Your task to perform on an android device: Go to notification settings Image 0: 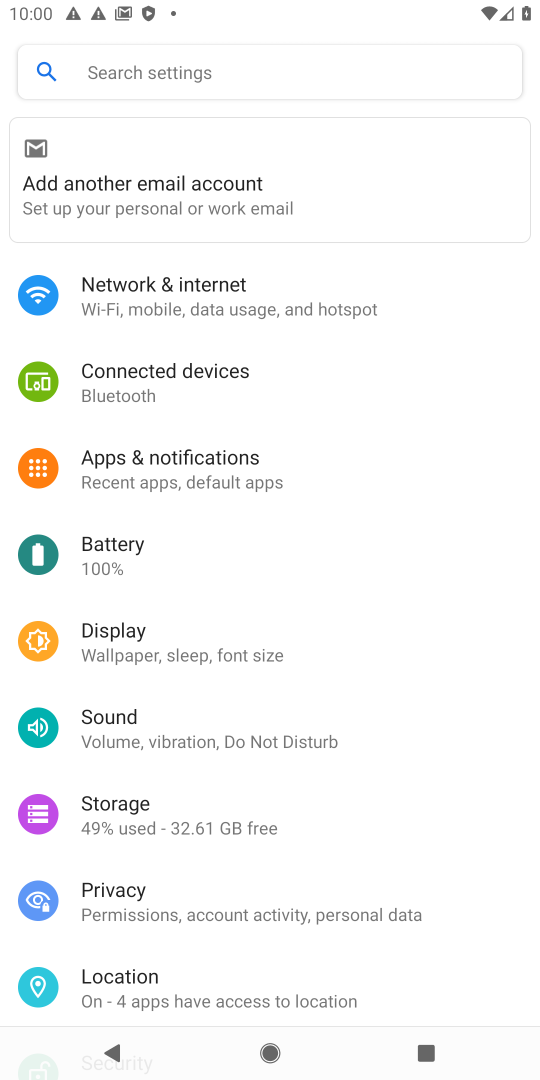
Step 0: press home button
Your task to perform on an android device: Go to notification settings Image 1: 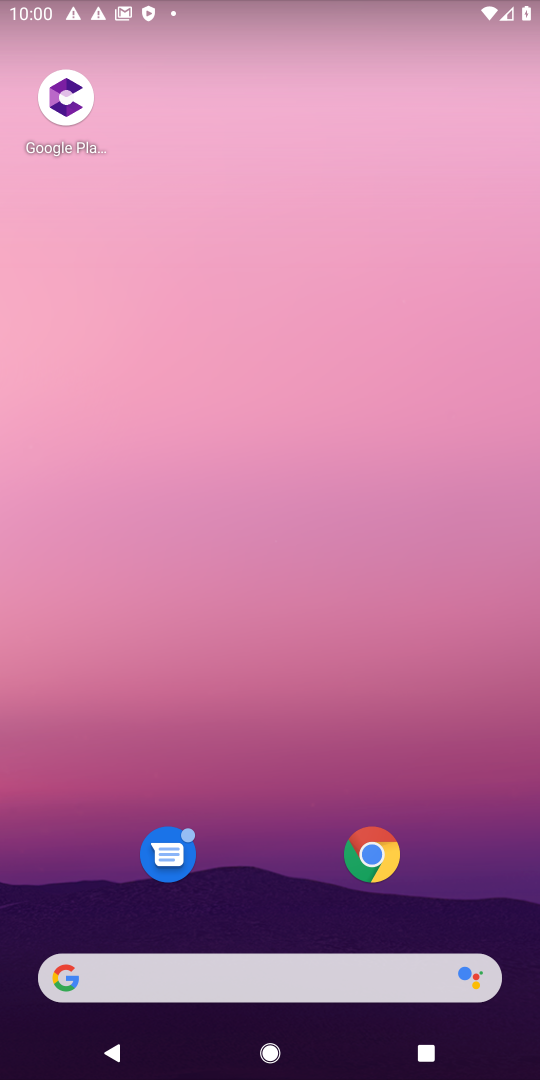
Step 1: click (362, 836)
Your task to perform on an android device: Go to notification settings Image 2: 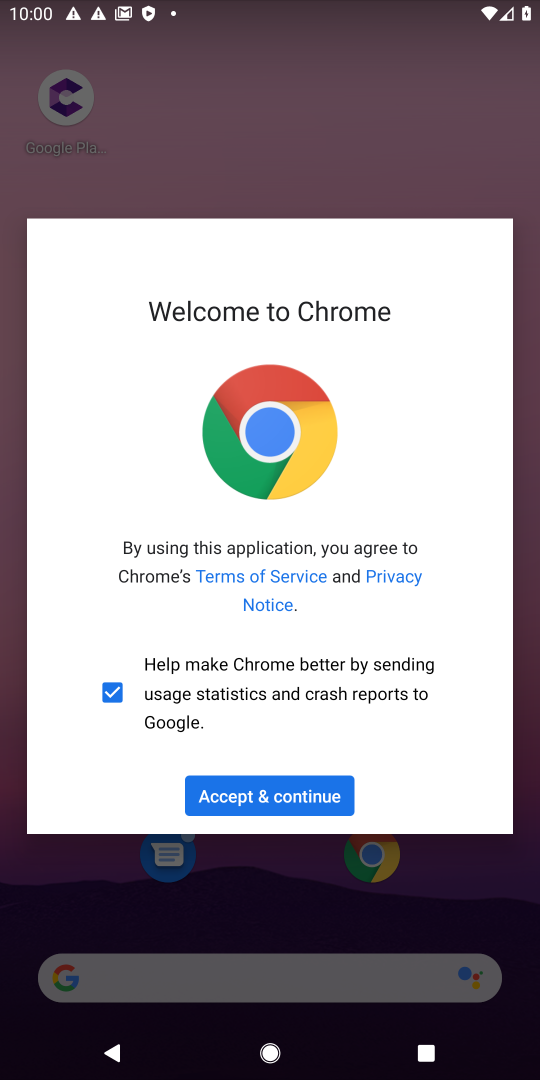
Step 2: click (207, 792)
Your task to perform on an android device: Go to notification settings Image 3: 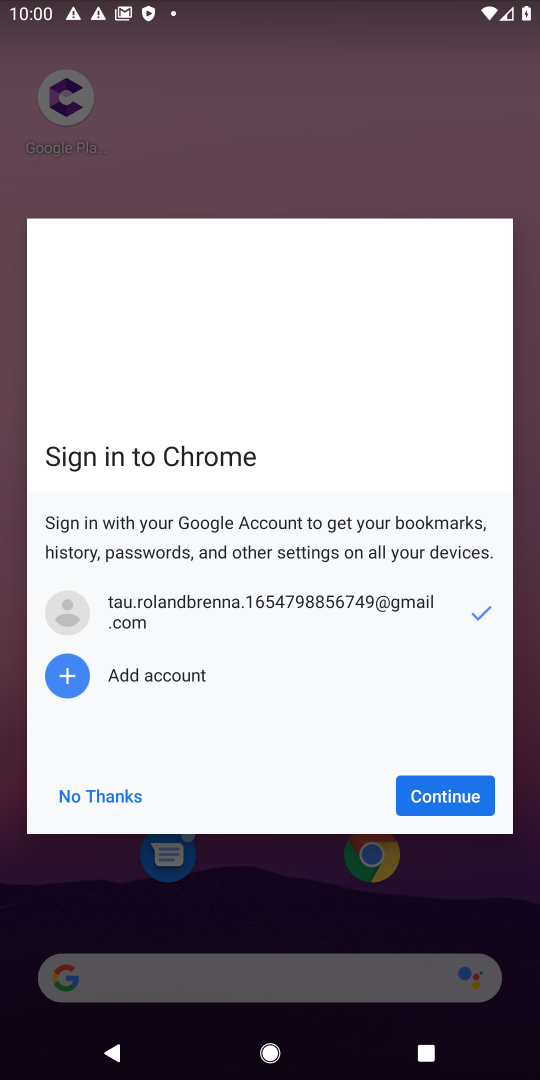
Step 3: click (417, 783)
Your task to perform on an android device: Go to notification settings Image 4: 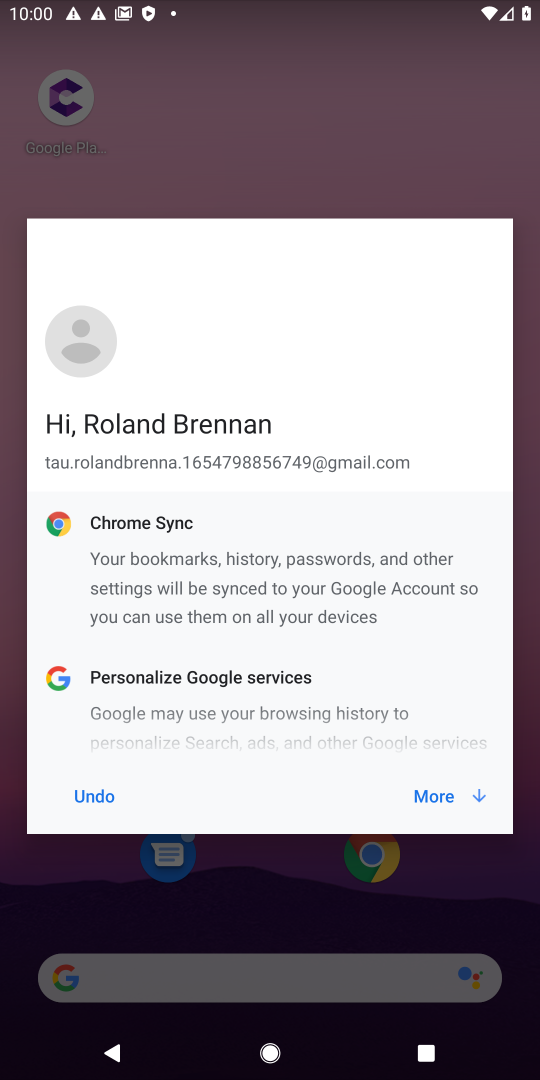
Step 4: click (440, 801)
Your task to perform on an android device: Go to notification settings Image 5: 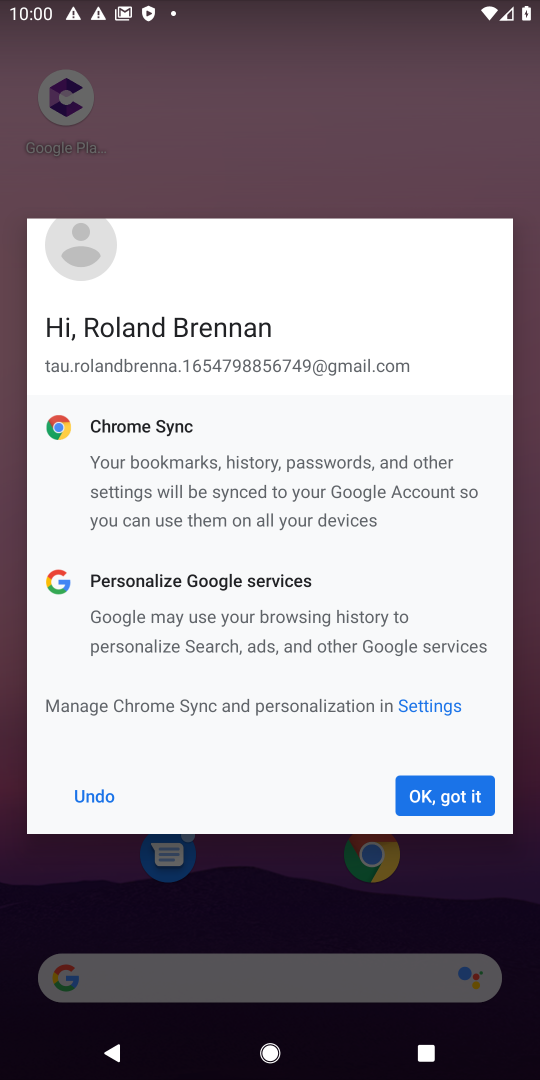
Step 5: click (440, 801)
Your task to perform on an android device: Go to notification settings Image 6: 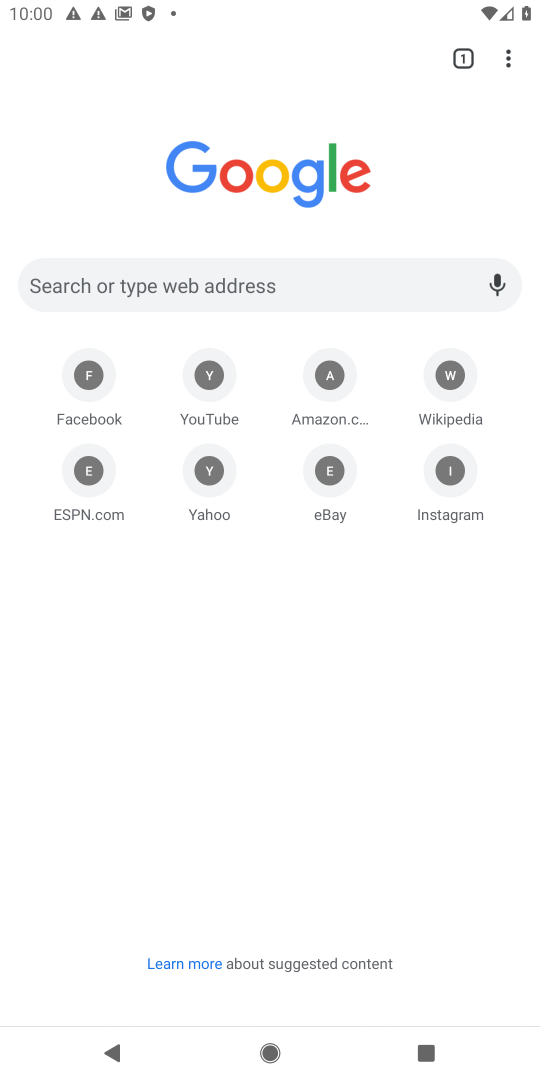
Step 6: task complete